Your task to perform on an android device: Open location settings Image 0: 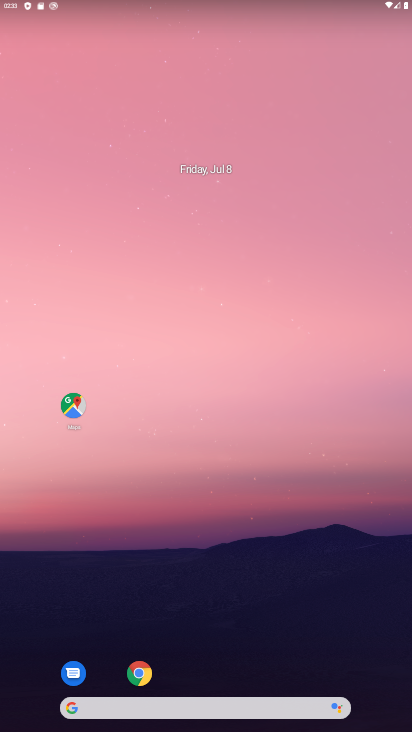
Step 0: press home button
Your task to perform on an android device: Open location settings Image 1: 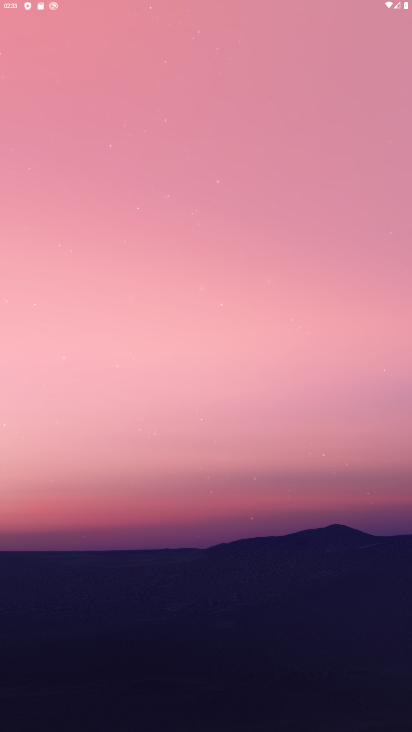
Step 1: drag from (231, 474) to (240, 89)
Your task to perform on an android device: Open location settings Image 2: 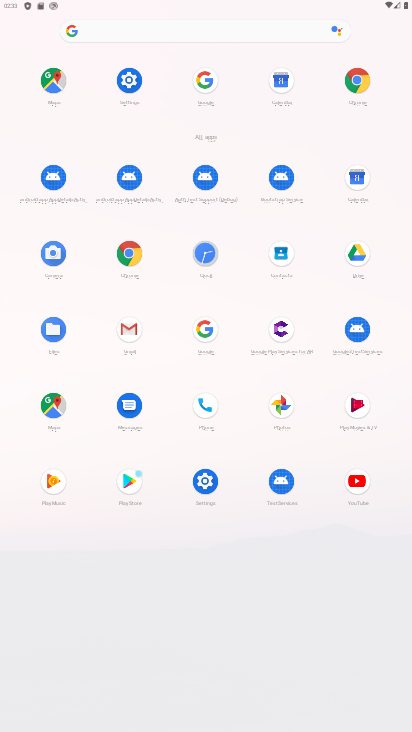
Step 2: click (213, 470)
Your task to perform on an android device: Open location settings Image 3: 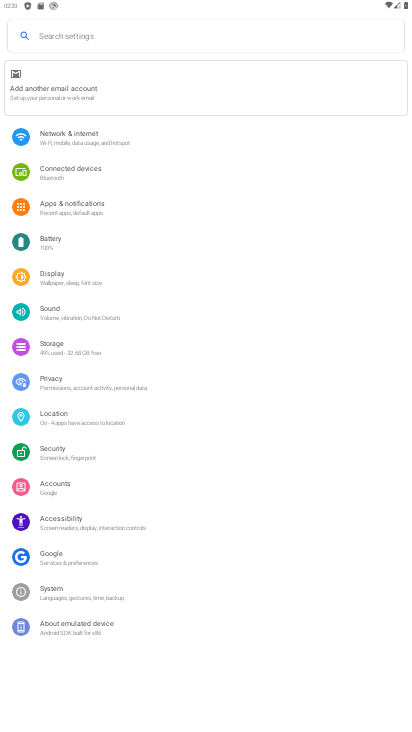
Step 3: click (40, 417)
Your task to perform on an android device: Open location settings Image 4: 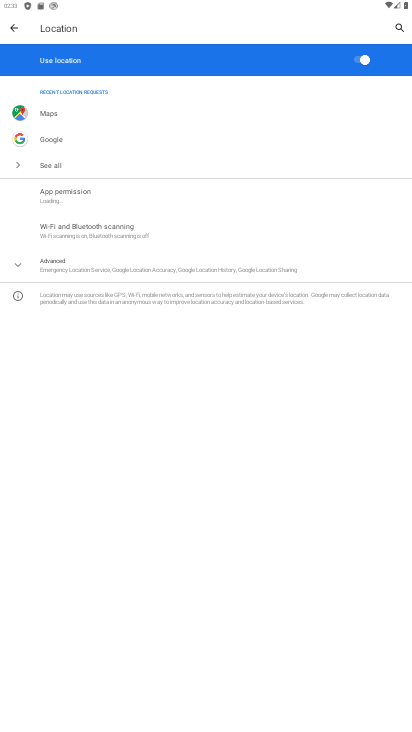
Step 4: task complete